Your task to perform on an android device: turn off location history Image 0: 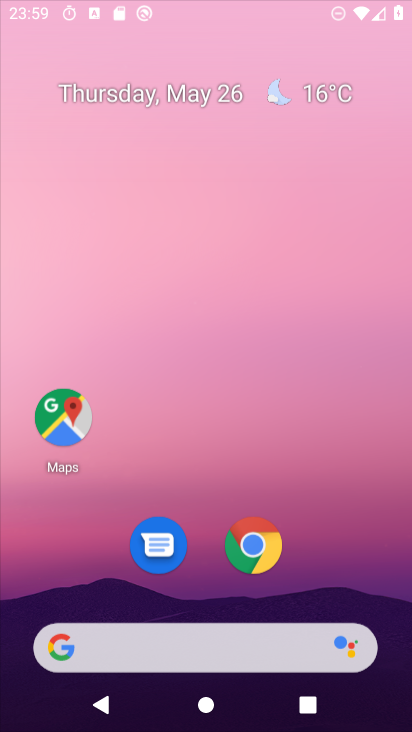
Step 0: press home button
Your task to perform on an android device: turn off location history Image 1: 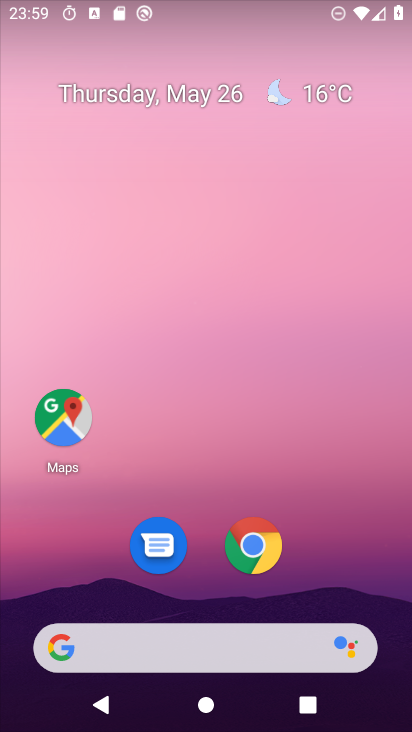
Step 1: drag from (338, 614) to (309, 248)
Your task to perform on an android device: turn off location history Image 2: 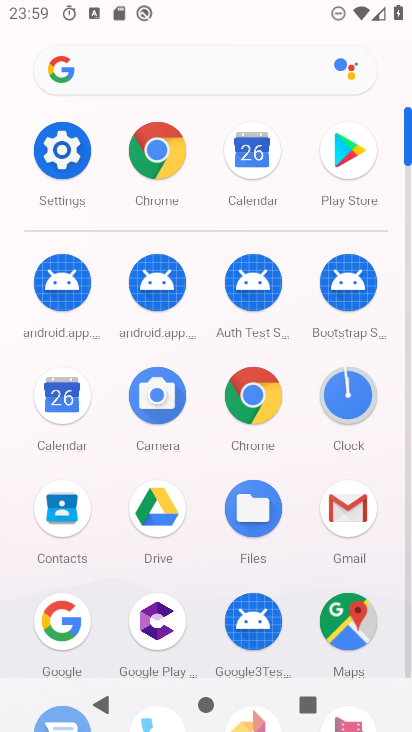
Step 2: click (57, 151)
Your task to perform on an android device: turn off location history Image 3: 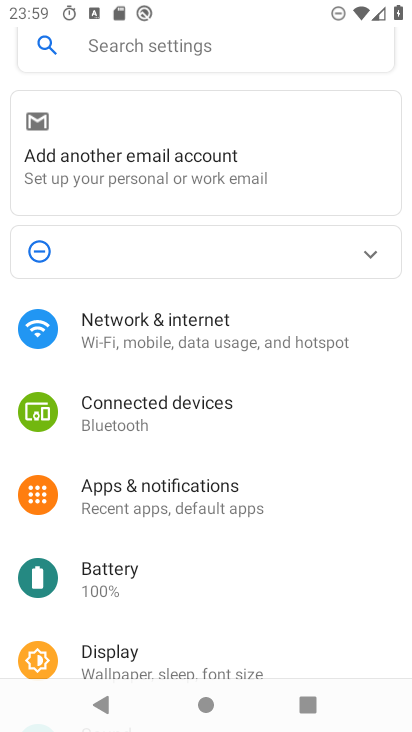
Step 3: drag from (278, 586) to (297, 126)
Your task to perform on an android device: turn off location history Image 4: 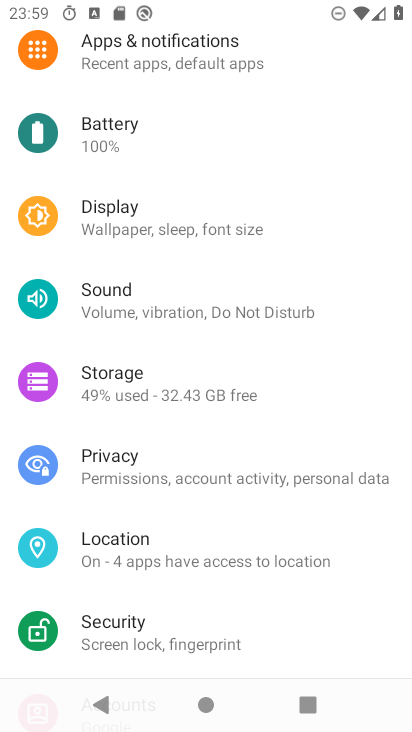
Step 4: click (105, 553)
Your task to perform on an android device: turn off location history Image 5: 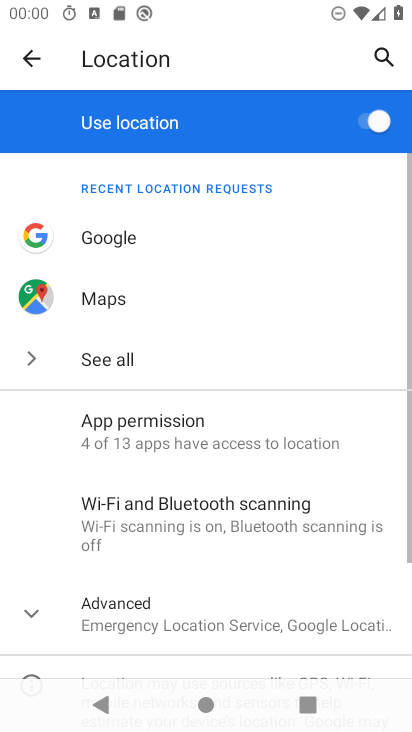
Step 5: click (136, 620)
Your task to perform on an android device: turn off location history Image 6: 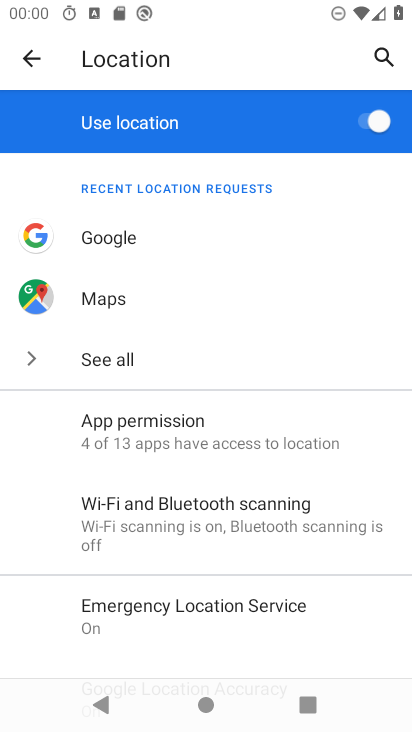
Step 6: drag from (363, 590) to (350, 255)
Your task to perform on an android device: turn off location history Image 7: 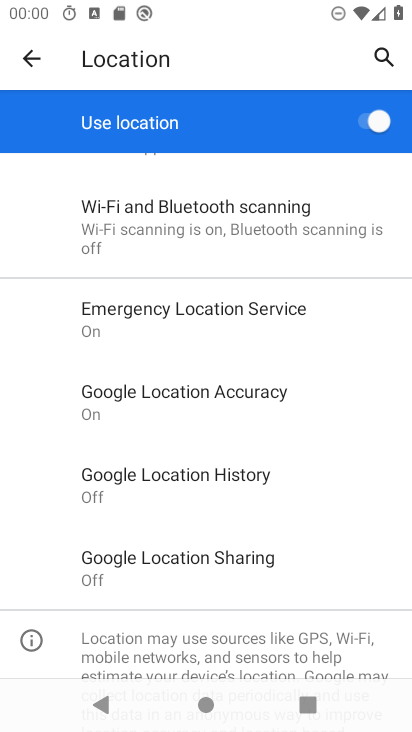
Step 7: click (187, 481)
Your task to perform on an android device: turn off location history Image 8: 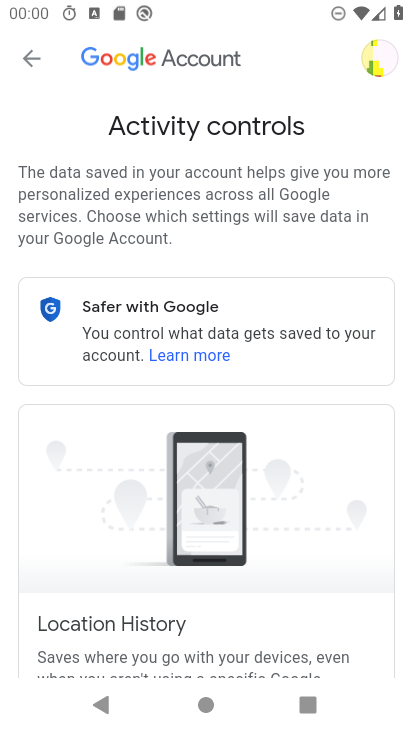
Step 8: task complete